Your task to perform on an android device: Go to Yahoo.com Image 0: 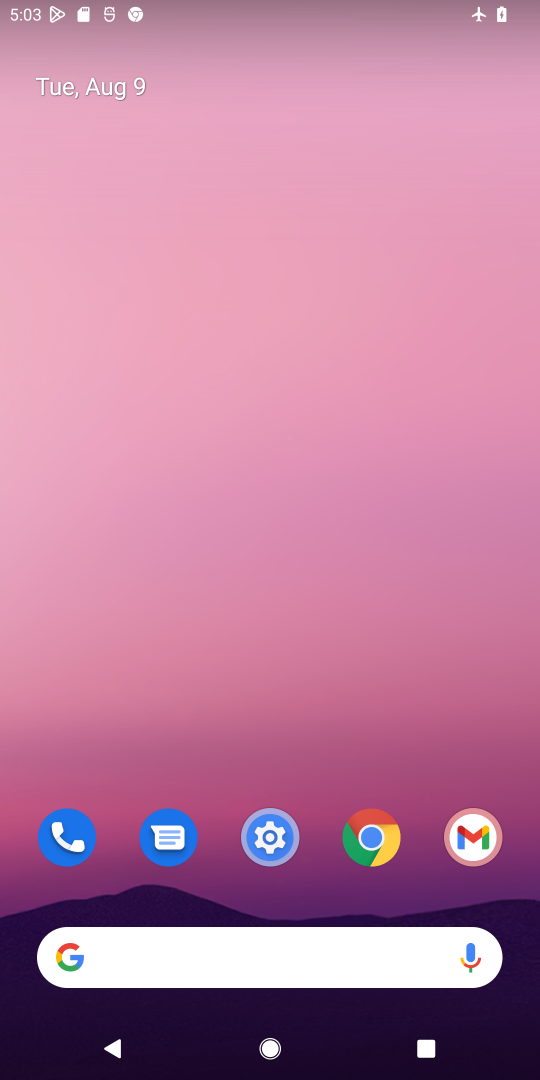
Step 0: drag from (248, 878) to (232, 141)
Your task to perform on an android device: Go to Yahoo.com Image 1: 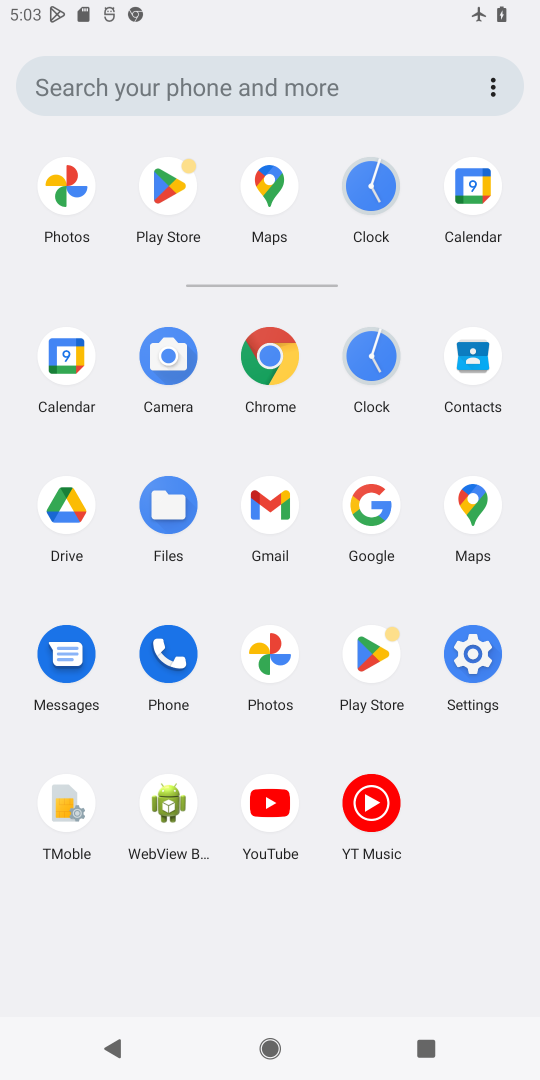
Step 1: click (264, 360)
Your task to perform on an android device: Go to Yahoo.com Image 2: 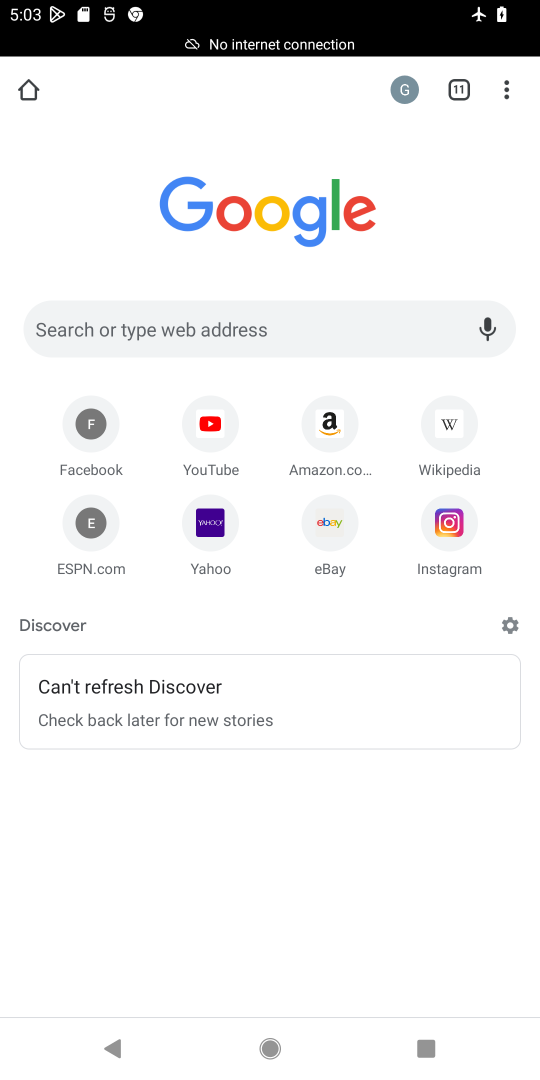
Step 2: click (217, 522)
Your task to perform on an android device: Go to Yahoo.com Image 3: 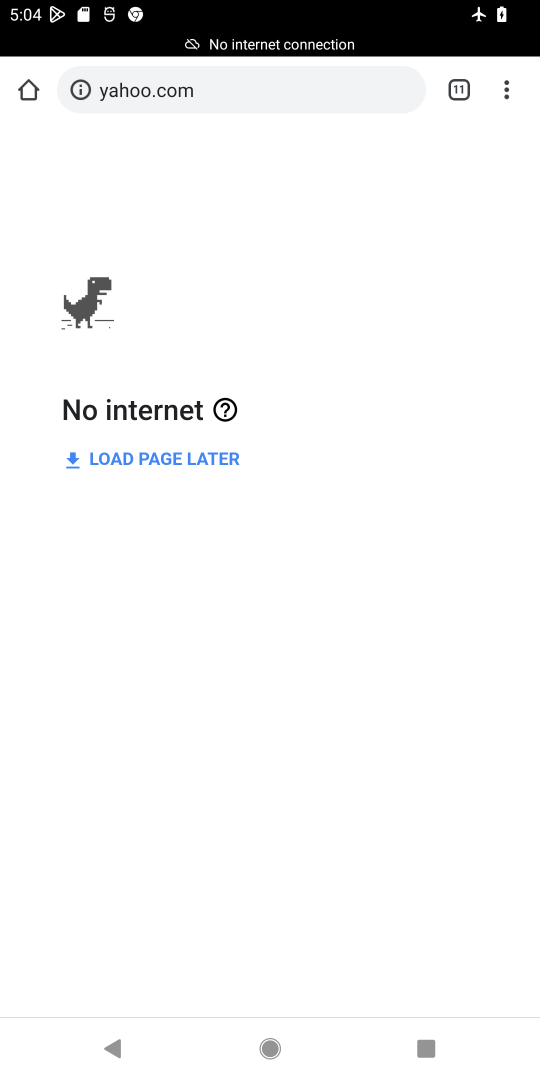
Step 3: task complete